Your task to perform on an android device: turn off wifi Image 0: 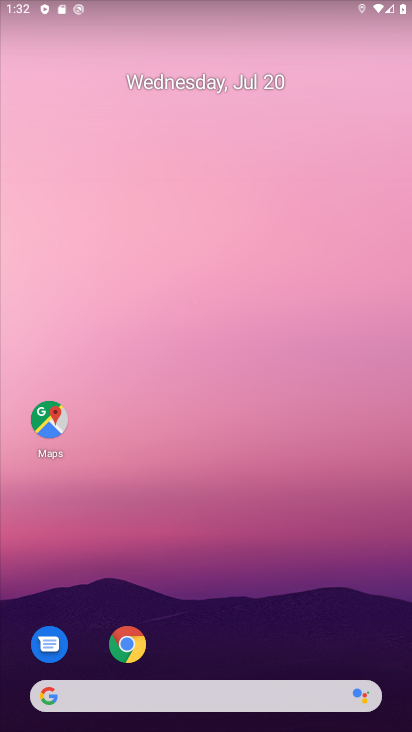
Step 0: drag from (309, 630) to (300, 220)
Your task to perform on an android device: turn off wifi Image 1: 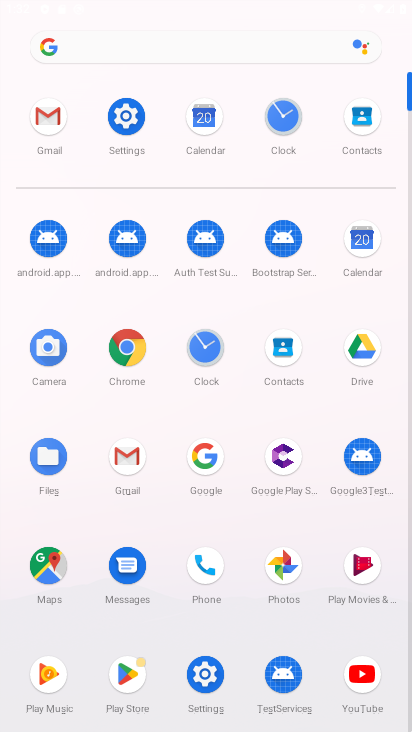
Step 1: click (114, 105)
Your task to perform on an android device: turn off wifi Image 2: 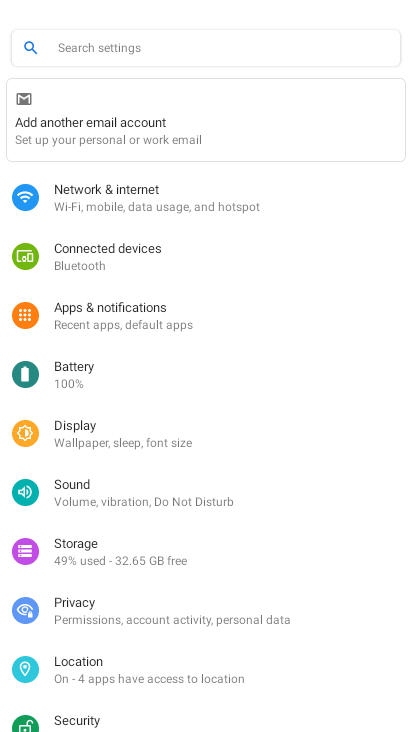
Step 2: click (100, 209)
Your task to perform on an android device: turn off wifi Image 3: 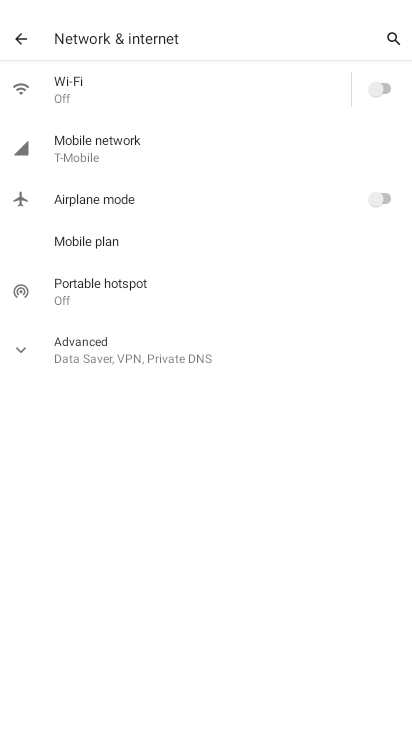
Step 3: task complete